Your task to perform on an android device: turn on improve location accuracy Image 0: 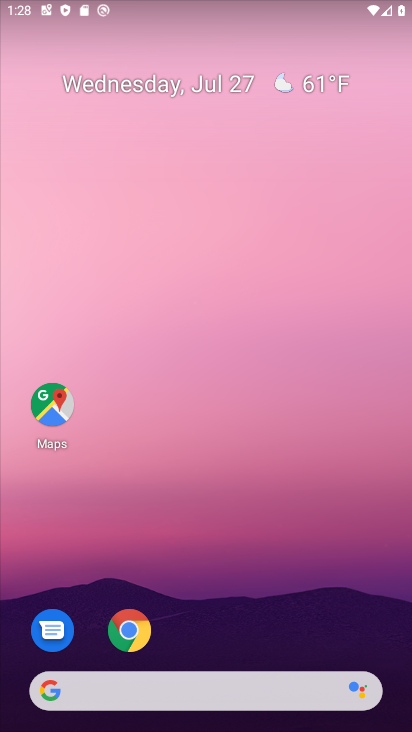
Step 0: drag from (226, 637) to (298, 29)
Your task to perform on an android device: turn on improve location accuracy Image 1: 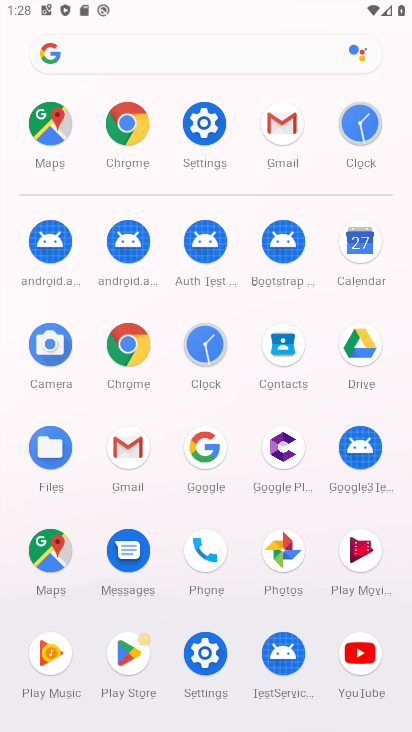
Step 1: click (203, 129)
Your task to perform on an android device: turn on improve location accuracy Image 2: 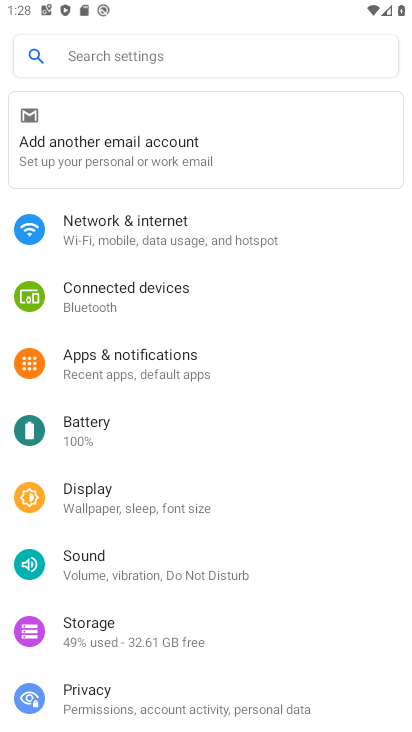
Step 2: drag from (112, 653) to (131, 414)
Your task to perform on an android device: turn on improve location accuracy Image 3: 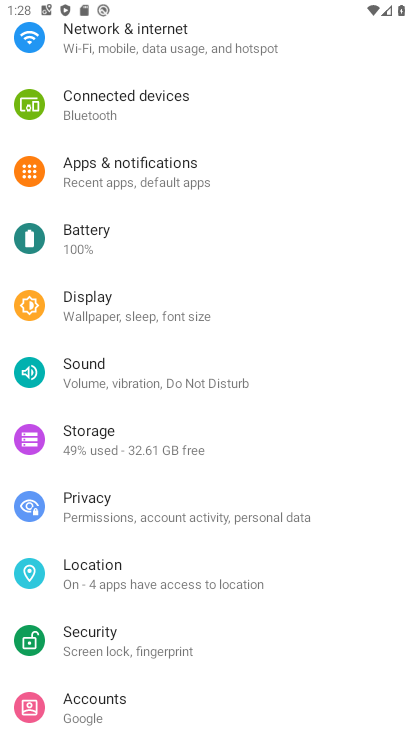
Step 3: click (102, 570)
Your task to perform on an android device: turn on improve location accuracy Image 4: 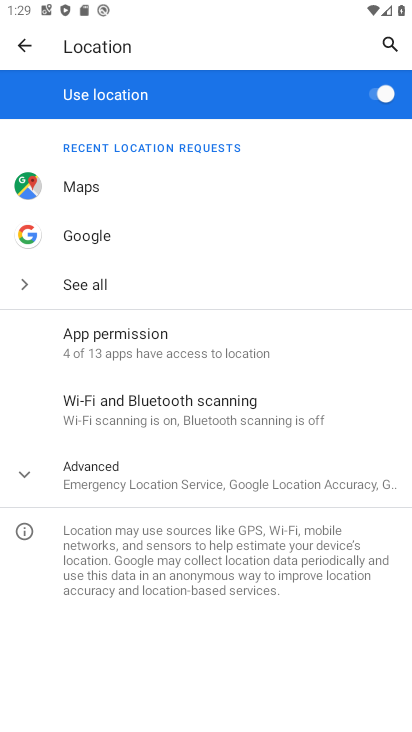
Step 4: click (124, 472)
Your task to perform on an android device: turn on improve location accuracy Image 5: 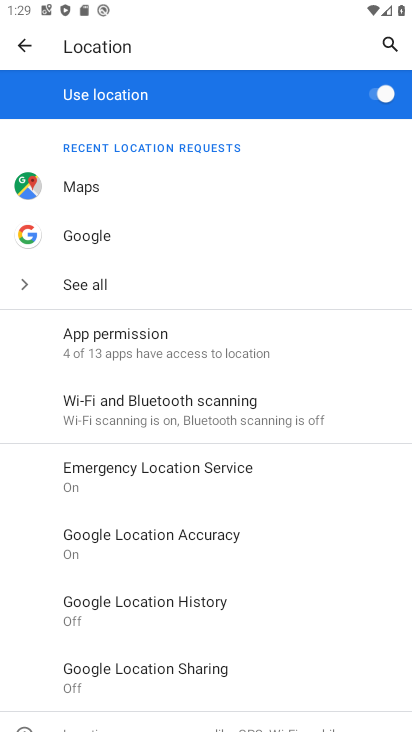
Step 5: click (117, 542)
Your task to perform on an android device: turn on improve location accuracy Image 6: 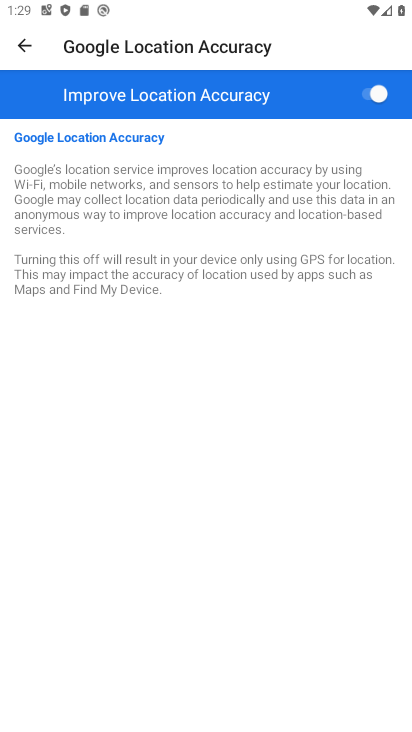
Step 6: task complete